Your task to perform on an android device: Open settings on Google Maps Image 0: 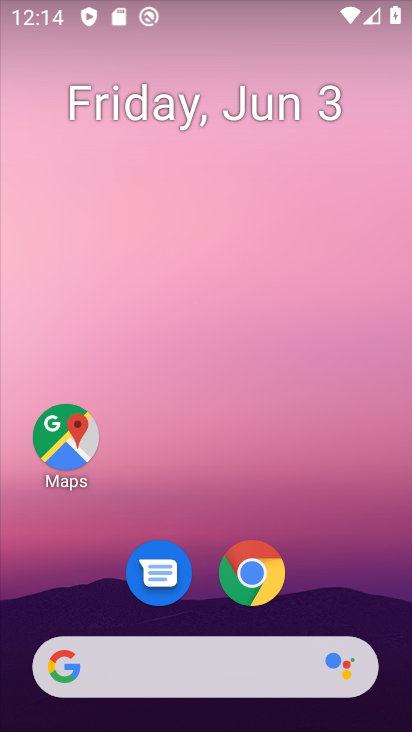
Step 0: task complete